Your task to perform on an android device: choose inbox layout in the gmail app Image 0: 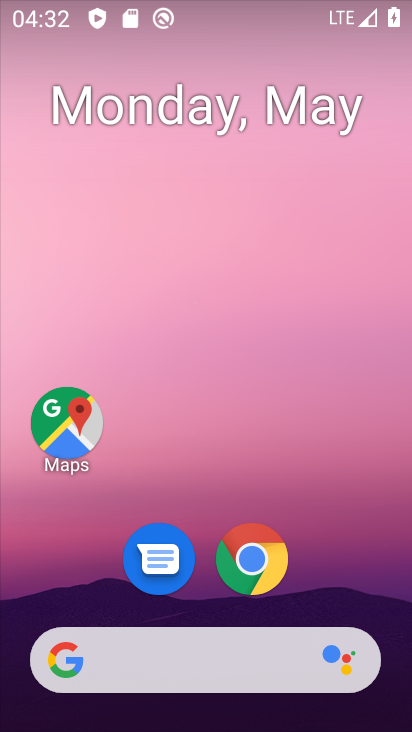
Step 0: drag from (228, 666) to (343, 126)
Your task to perform on an android device: choose inbox layout in the gmail app Image 1: 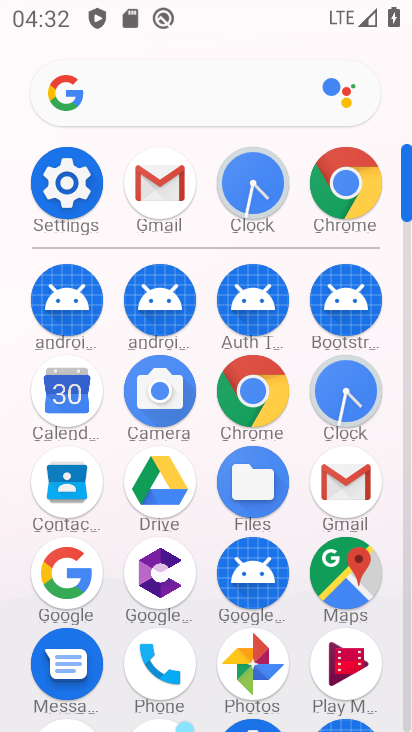
Step 1: click (359, 486)
Your task to perform on an android device: choose inbox layout in the gmail app Image 2: 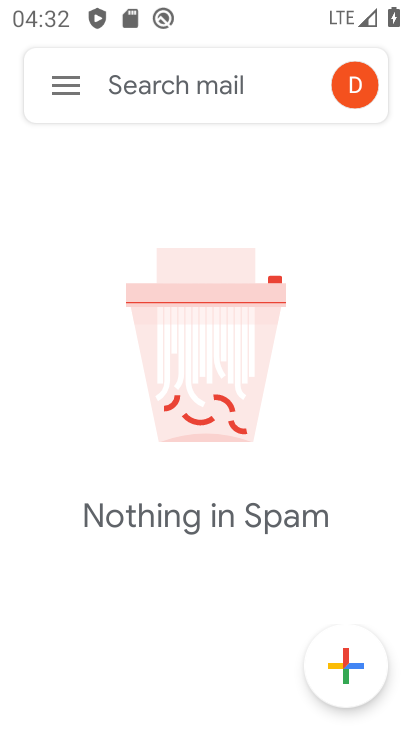
Step 2: click (66, 86)
Your task to perform on an android device: choose inbox layout in the gmail app Image 3: 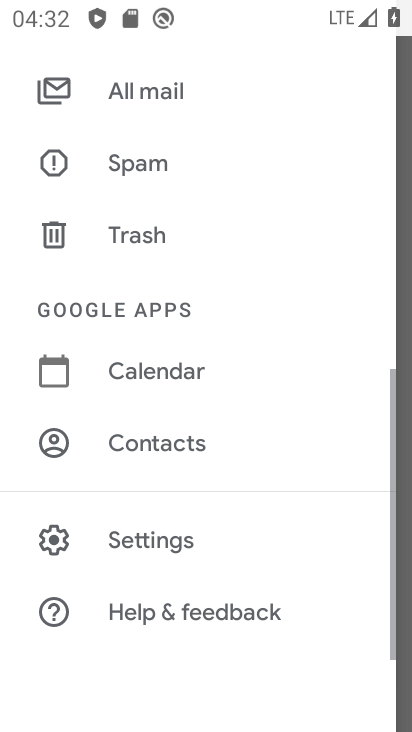
Step 3: click (178, 552)
Your task to perform on an android device: choose inbox layout in the gmail app Image 4: 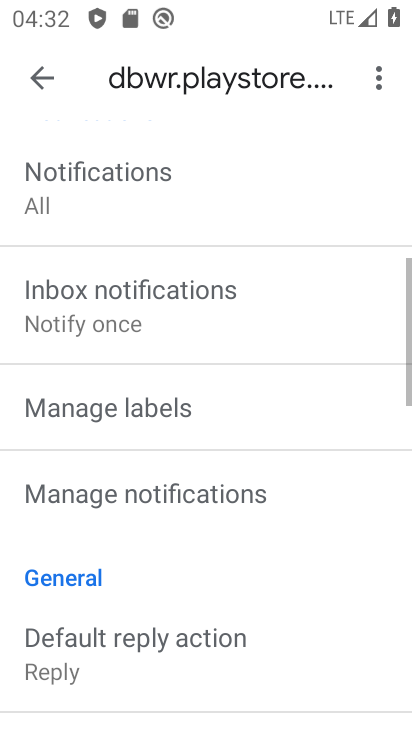
Step 4: drag from (147, 239) to (176, 711)
Your task to perform on an android device: choose inbox layout in the gmail app Image 5: 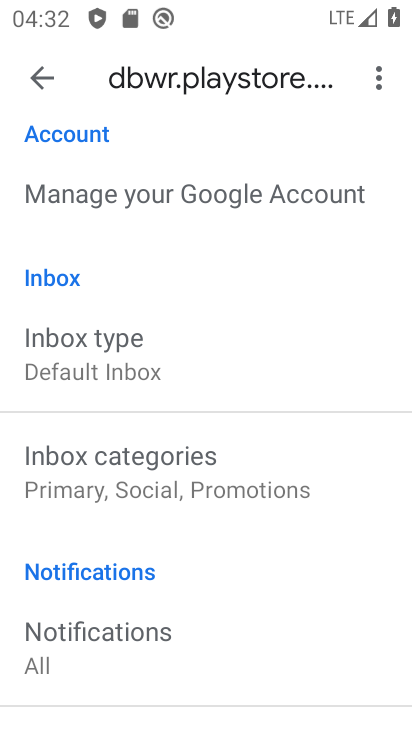
Step 5: click (136, 356)
Your task to perform on an android device: choose inbox layout in the gmail app Image 6: 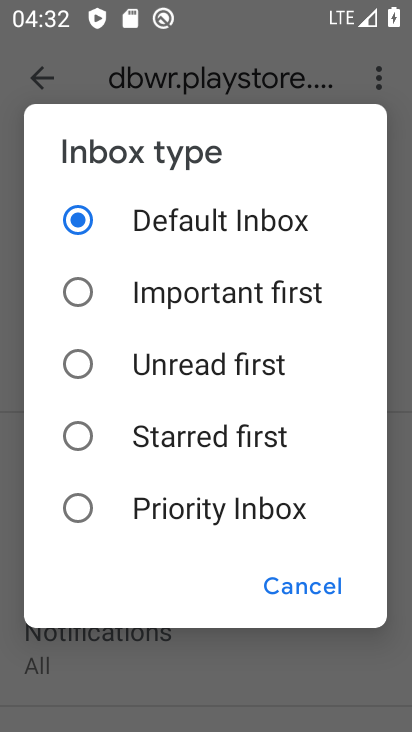
Step 6: click (89, 496)
Your task to perform on an android device: choose inbox layout in the gmail app Image 7: 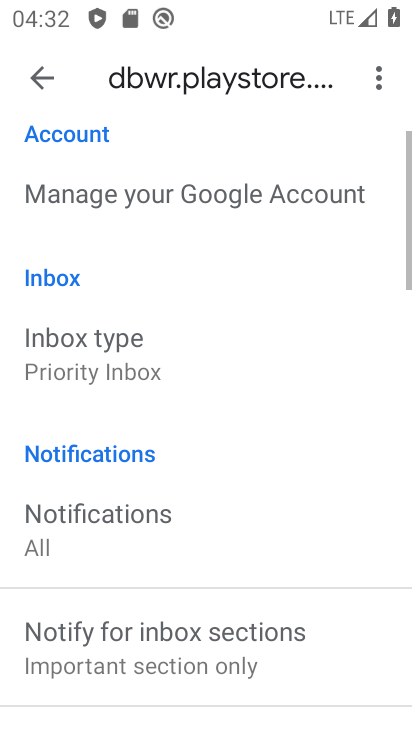
Step 7: task complete